Your task to perform on an android device: Show me productivity apps on the Play Store Image 0: 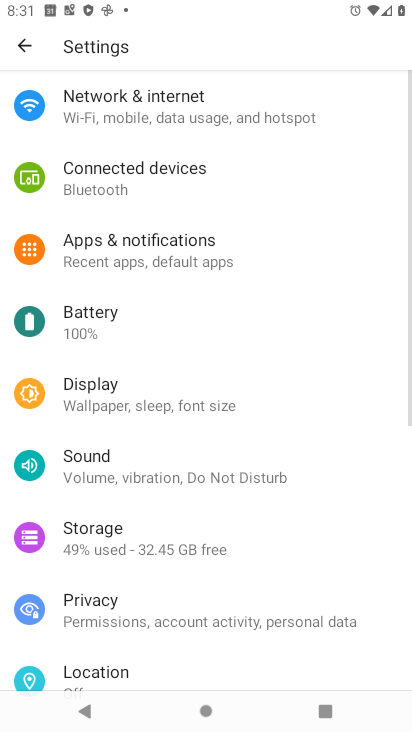
Step 0: press home button
Your task to perform on an android device: Show me productivity apps on the Play Store Image 1: 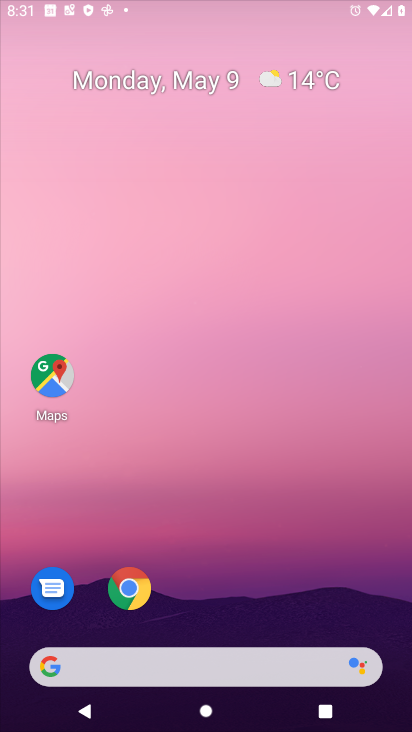
Step 1: drag from (322, 614) to (395, 386)
Your task to perform on an android device: Show me productivity apps on the Play Store Image 2: 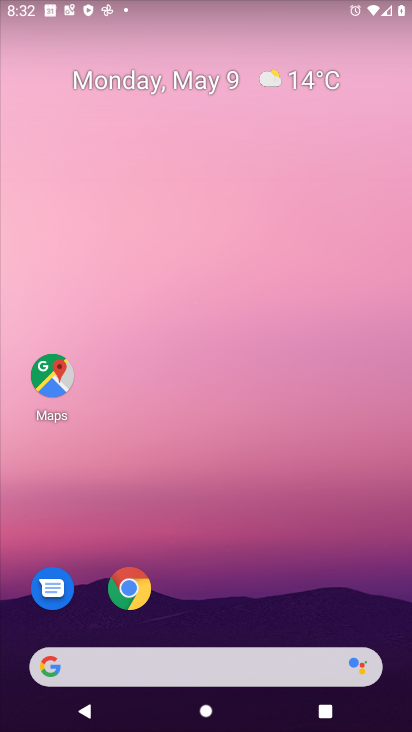
Step 2: drag from (285, 610) to (191, 61)
Your task to perform on an android device: Show me productivity apps on the Play Store Image 3: 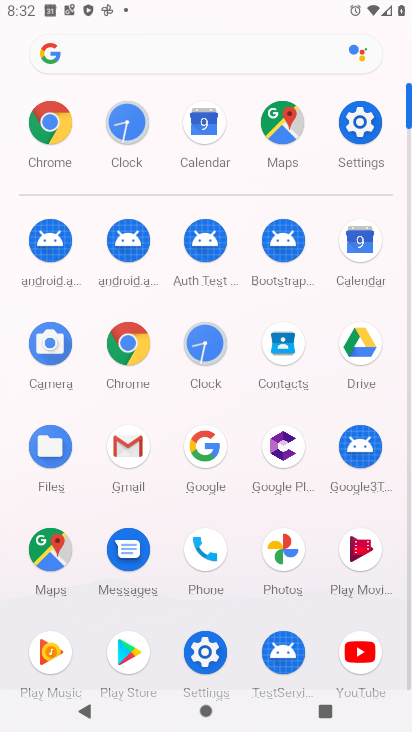
Step 3: click (123, 677)
Your task to perform on an android device: Show me productivity apps on the Play Store Image 4: 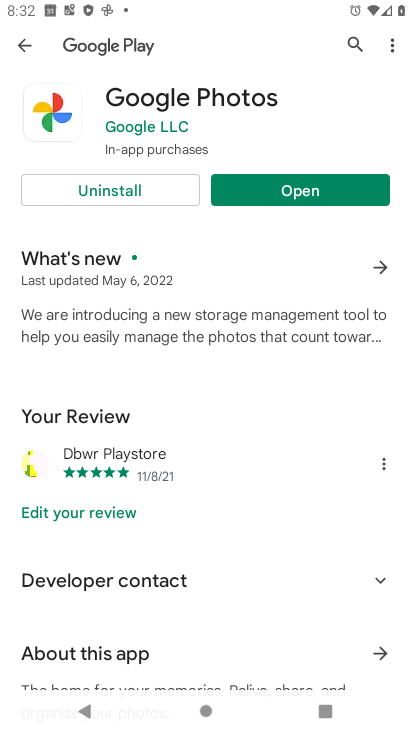
Step 4: press back button
Your task to perform on an android device: Show me productivity apps on the Play Store Image 5: 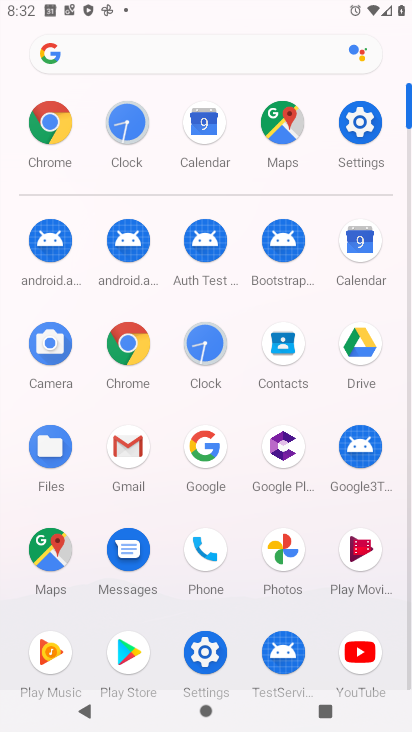
Step 5: click (119, 648)
Your task to perform on an android device: Show me productivity apps on the Play Store Image 6: 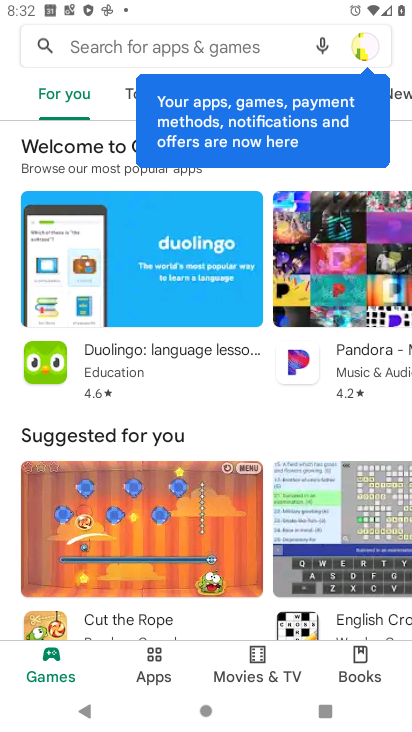
Step 6: task complete